Your task to perform on an android device: turn pop-ups off in chrome Image 0: 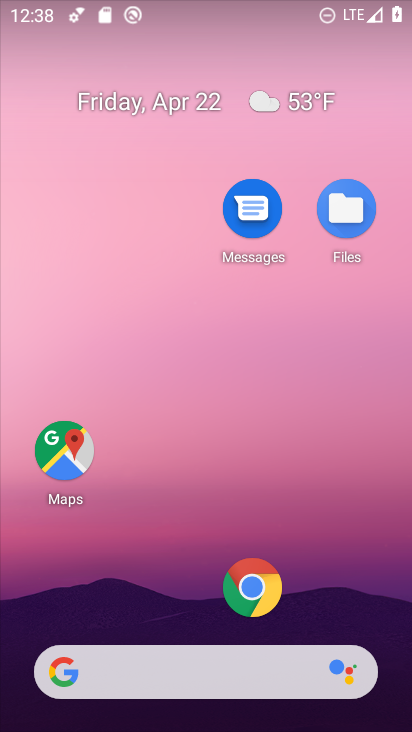
Step 0: drag from (144, 623) to (196, 160)
Your task to perform on an android device: turn pop-ups off in chrome Image 1: 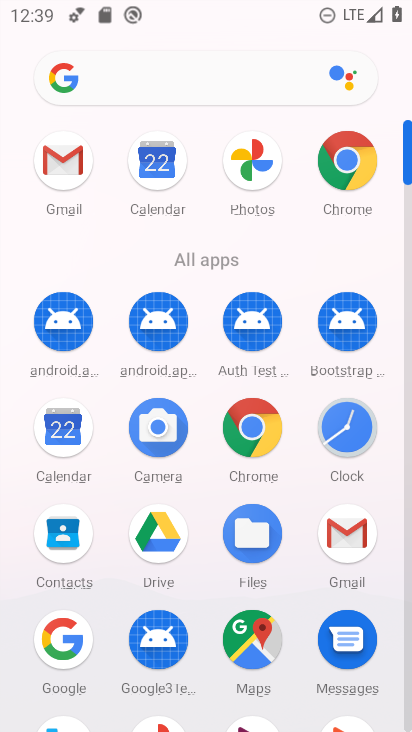
Step 1: click (348, 167)
Your task to perform on an android device: turn pop-ups off in chrome Image 2: 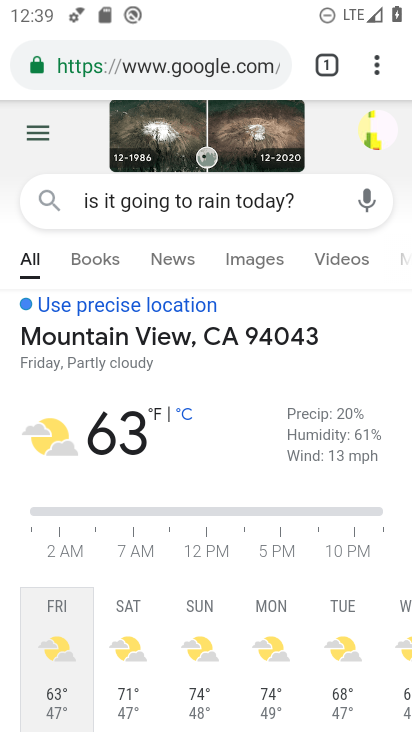
Step 2: click (370, 63)
Your task to perform on an android device: turn pop-ups off in chrome Image 3: 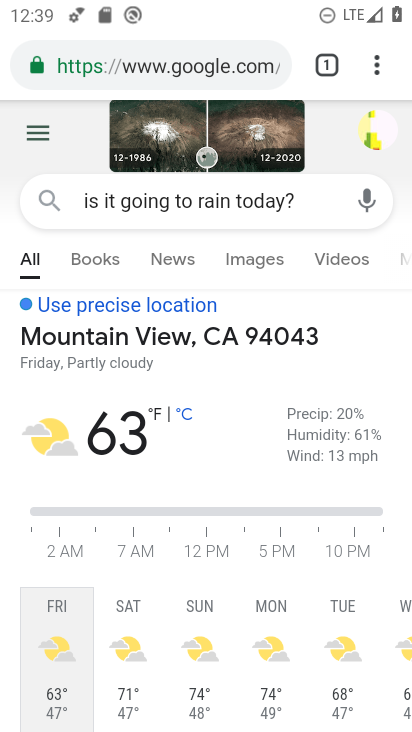
Step 3: click (377, 70)
Your task to perform on an android device: turn pop-ups off in chrome Image 4: 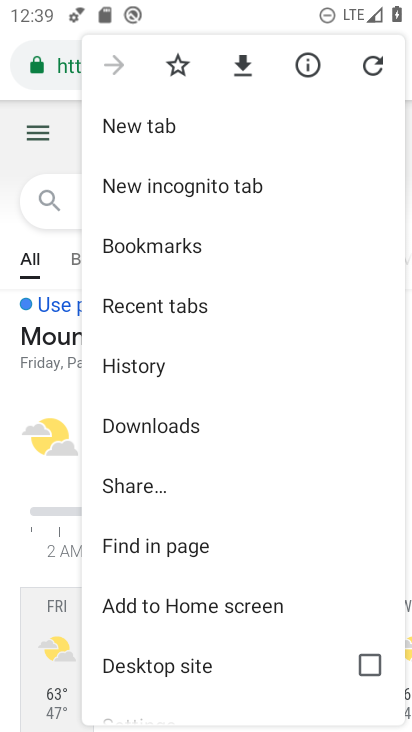
Step 4: drag from (216, 546) to (246, 351)
Your task to perform on an android device: turn pop-ups off in chrome Image 5: 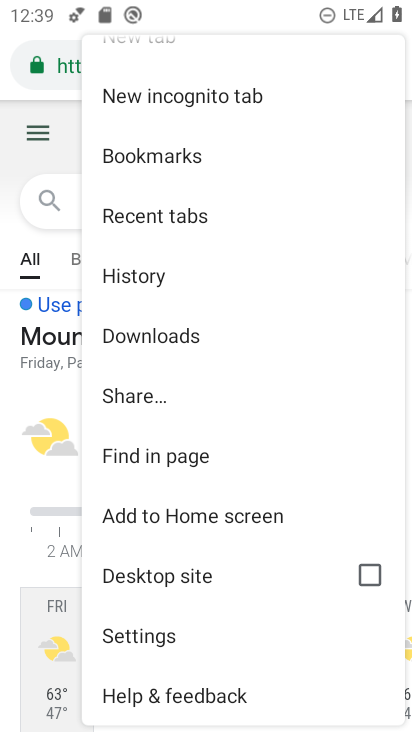
Step 5: click (154, 646)
Your task to perform on an android device: turn pop-ups off in chrome Image 6: 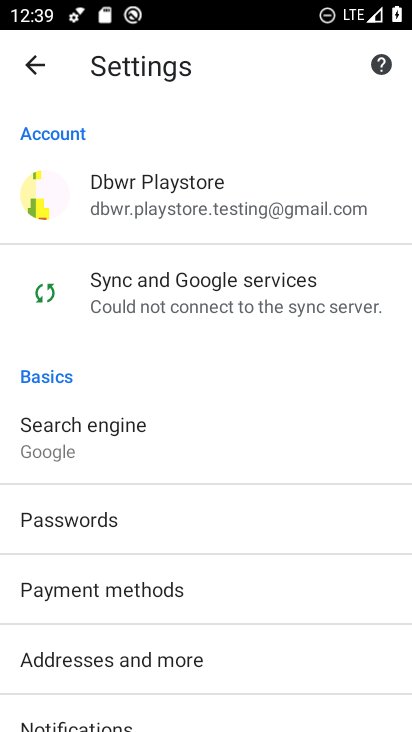
Step 6: drag from (133, 678) to (250, 261)
Your task to perform on an android device: turn pop-ups off in chrome Image 7: 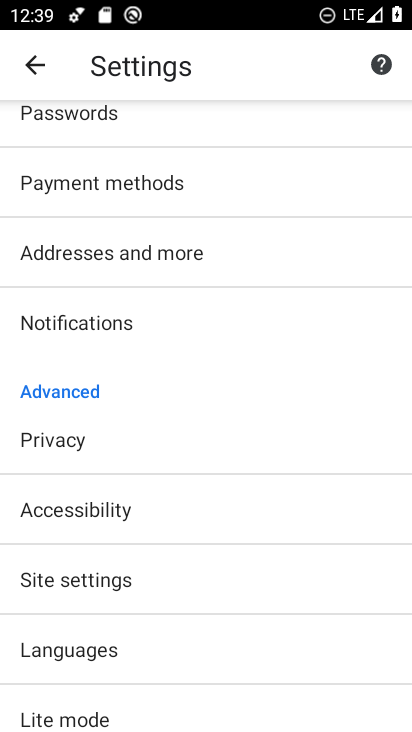
Step 7: click (82, 580)
Your task to perform on an android device: turn pop-ups off in chrome Image 8: 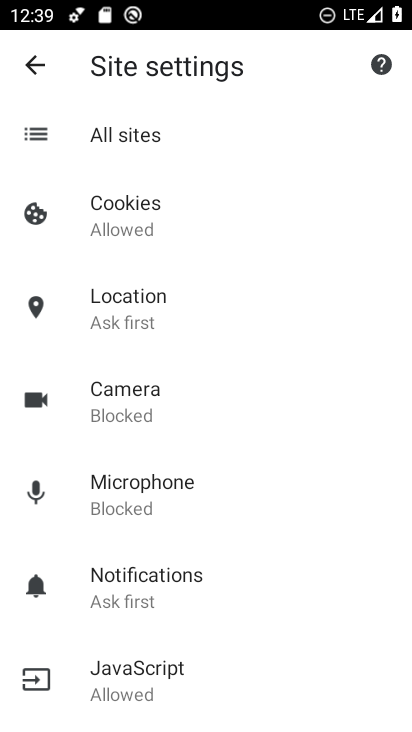
Step 8: drag from (161, 642) to (285, 313)
Your task to perform on an android device: turn pop-ups off in chrome Image 9: 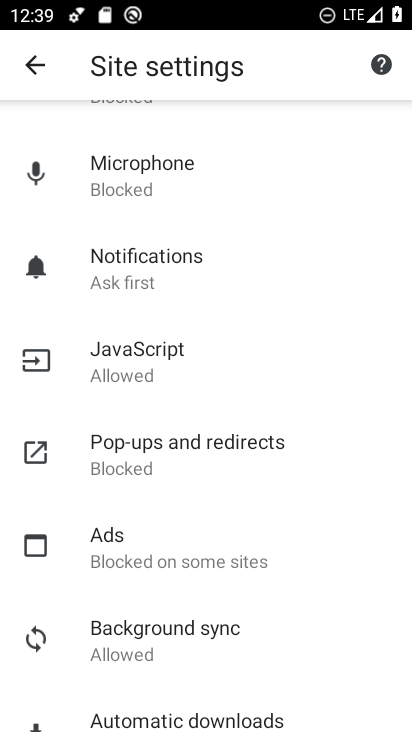
Step 9: click (126, 453)
Your task to perform on an android device: turn pop-ups off in chrome Image 10: 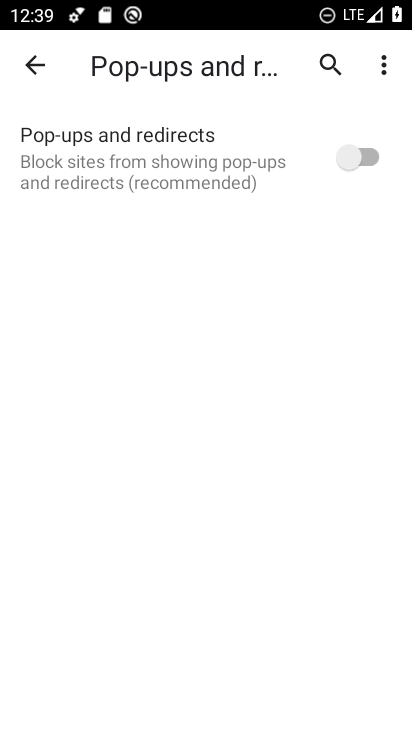
Step 10: task complete